Your task to perform on an android device: Go to Google maps Image 0: 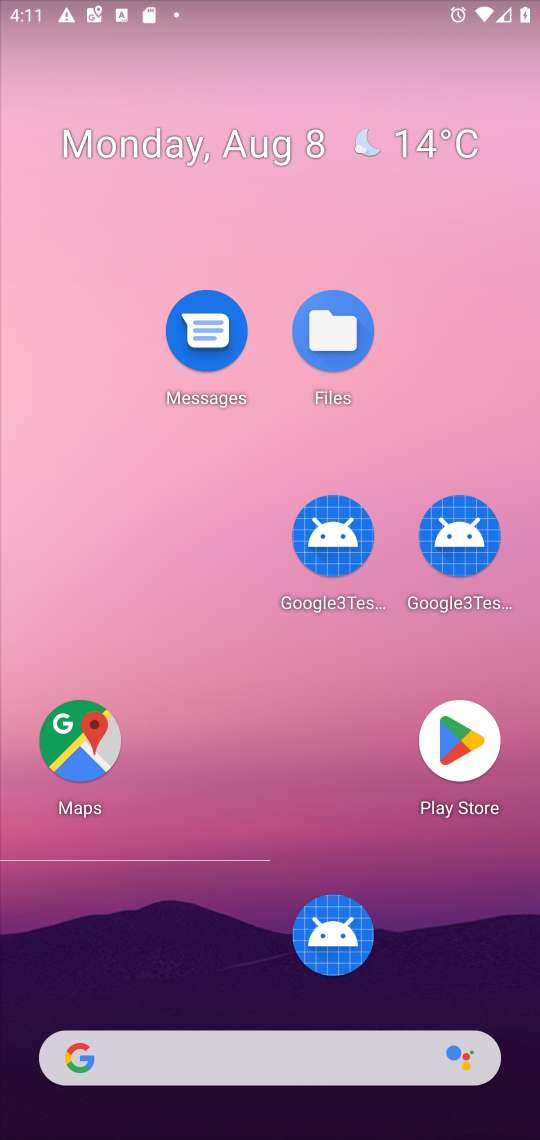
Step 0: drag from (283, 1033) to (332, 85)
Your task to perform on an android device: Go to Google maps Image 1: 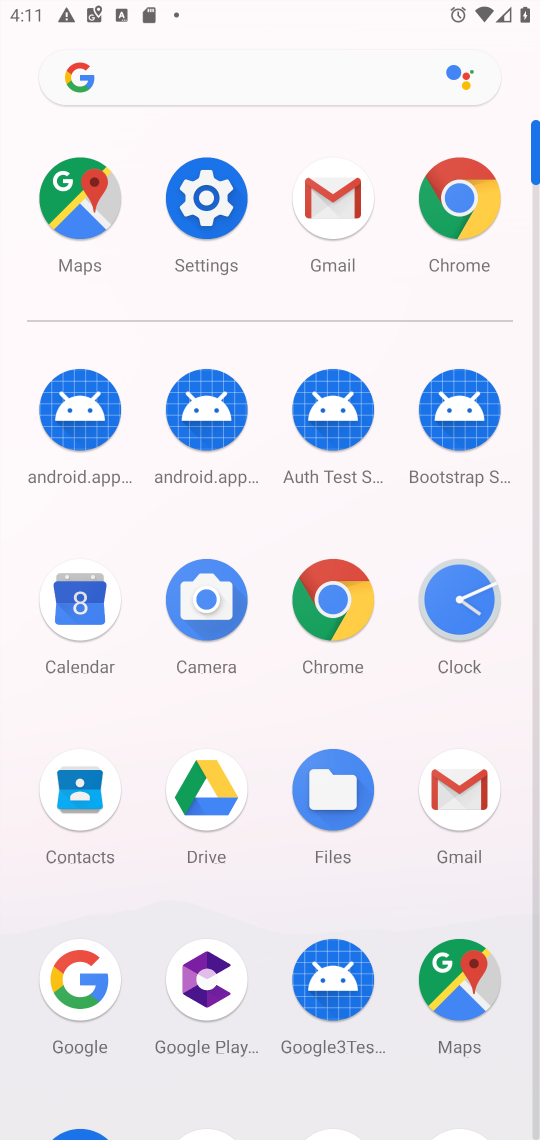
Step 1: click (456, 953)
Your task to perform on an android device: Go to Google maps Image 2: 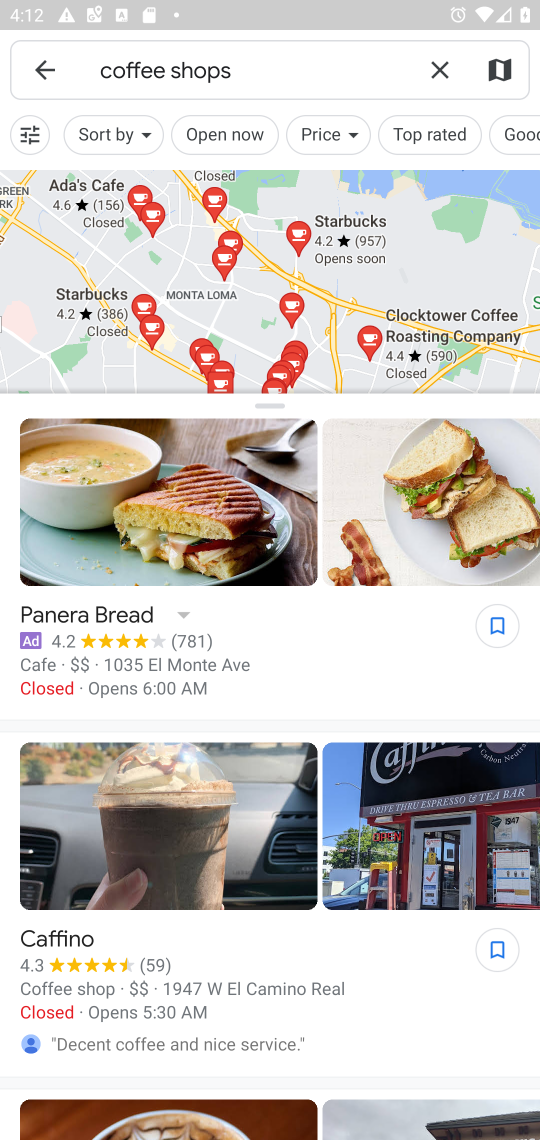
Step 2: task complete